Your task to perform on an android device: add a contact Image 0: 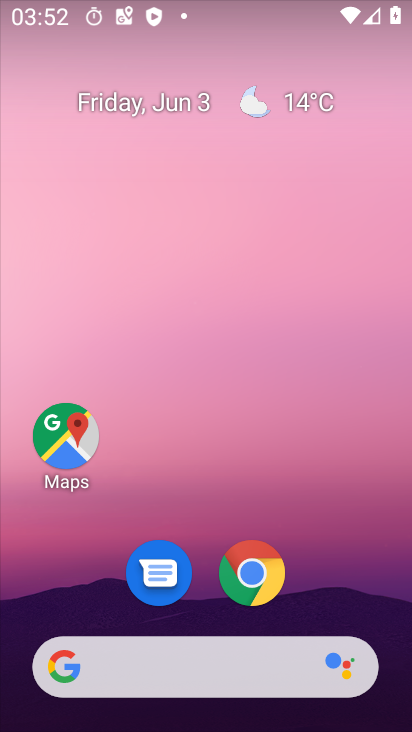
Step 0: click (277, 75)
Your task to perform on an android device: add a contact Image 1: 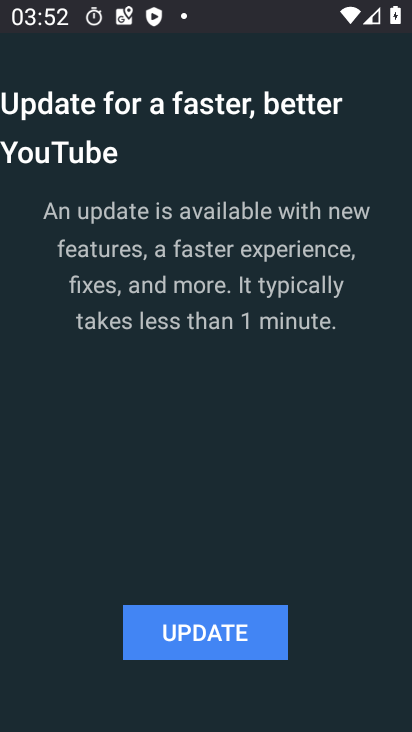
Step 1: press home button
Your task to perform on an android device: add a contact Image 2: 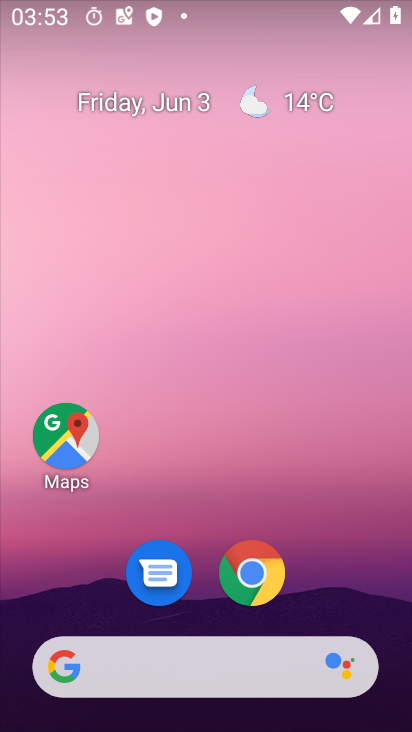
Step 2: drag from (268, 629) to (334, 3)
Your task to perform on an android device: add a contact Image 3: 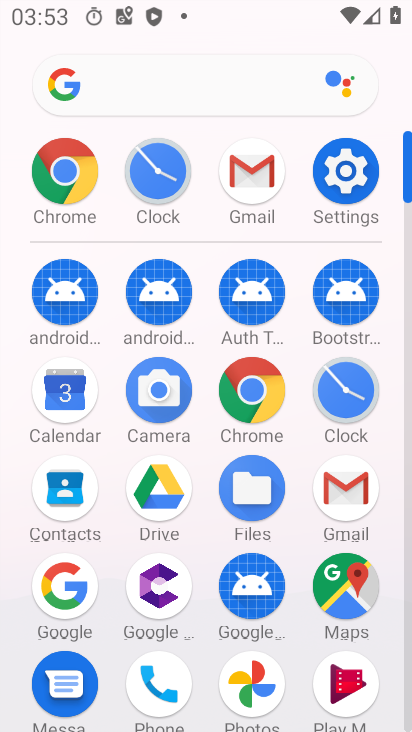
Step 3: click (49, 505)
Your task to perform on an android device: add a contact Image 4: 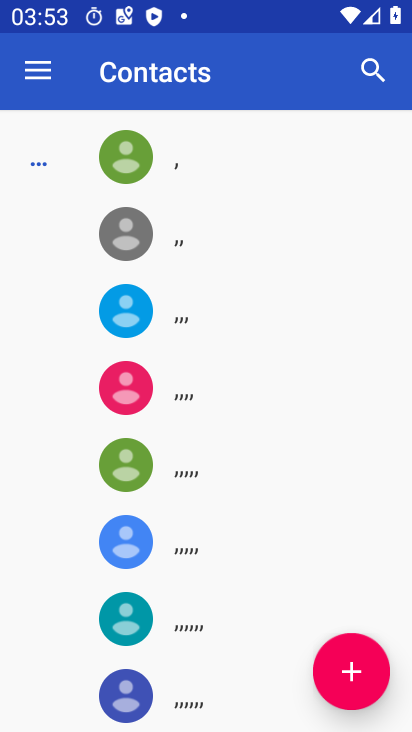
Step 4: click (346, 696)
Your task to perform on an android device: add a contact Image 5: 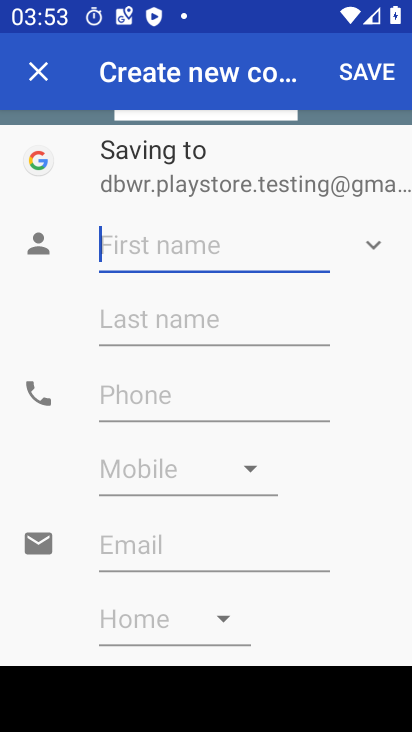
Step 5: type "dfhgdfhdh"
Your task to perform on an android device: add a contact Image 6: 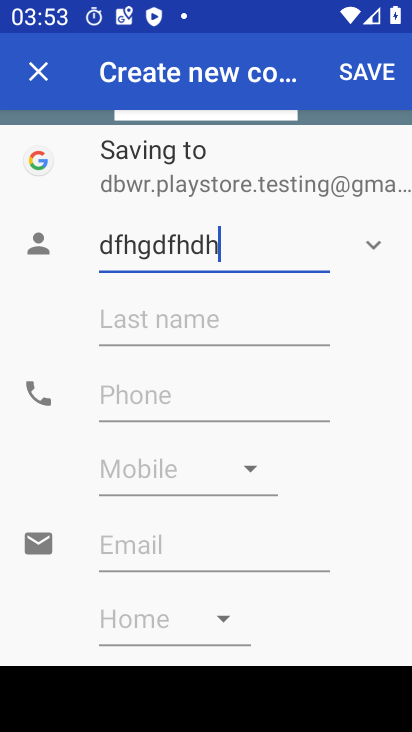
Step 6: click (199, 390)
Your task to perform on an android device: add a contact Image 7: 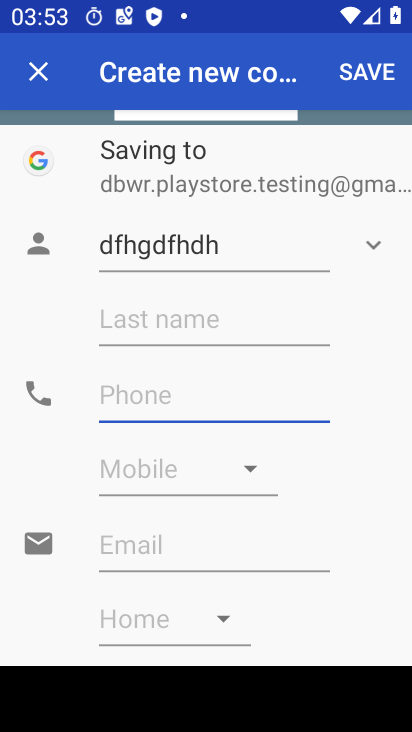
Step 7: type "98677888776"
Your task to perform on an android device: add a contact Image 8: 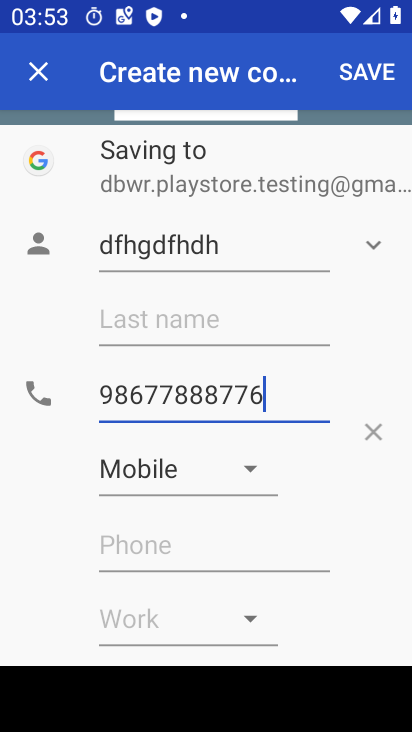
Step 8: click (379, 66)
Your task to perform on an android device: add a contact Image 9: 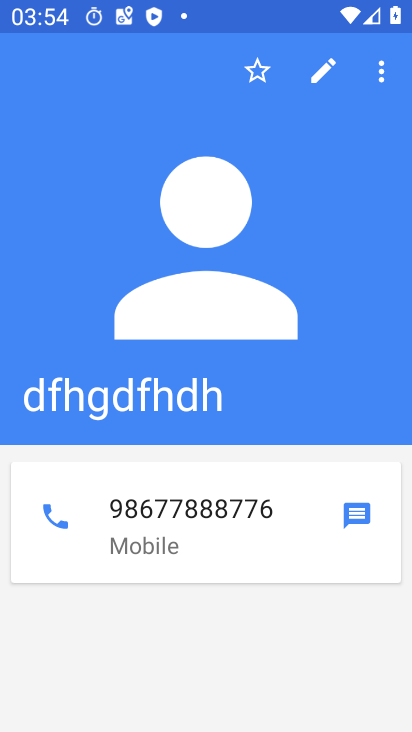
Step 9: task complete